Your task to perform on an android device: change the upload size in google photos Image 0: 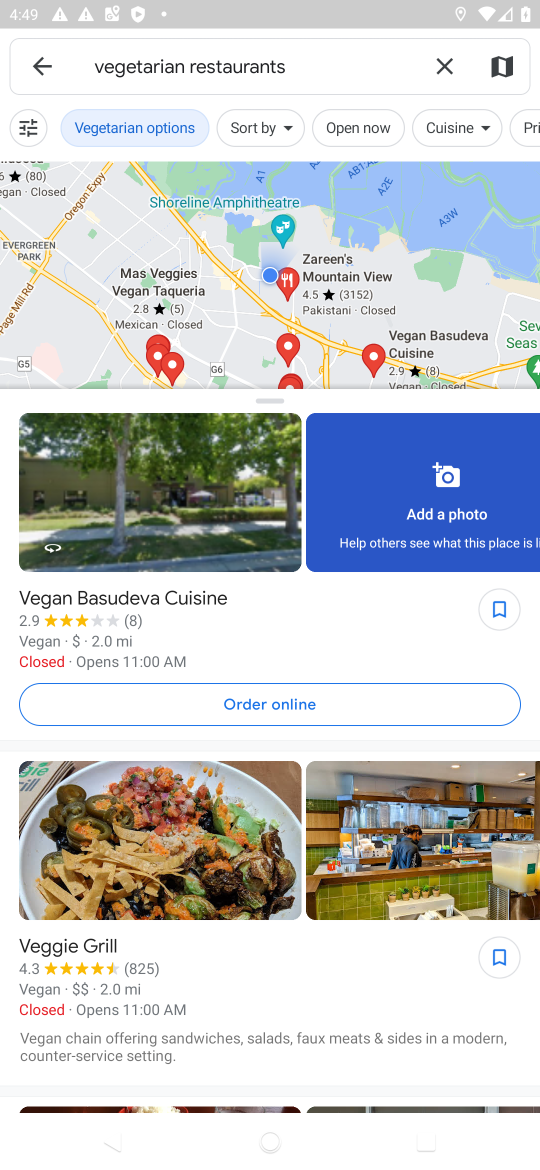
Step 0: press home button
Your task to perform on an android device: change the upload size in google photos Image 1: 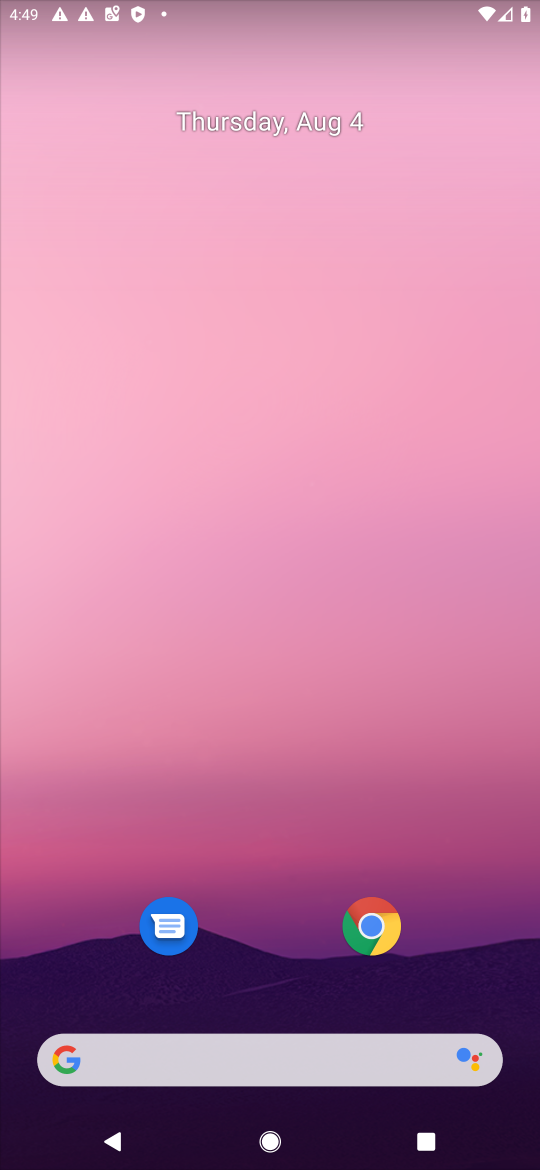
Step 1: drag from (329, 829) to (404, 315)
Your task to perform on an android device: change the upload size in google photos Image 2: 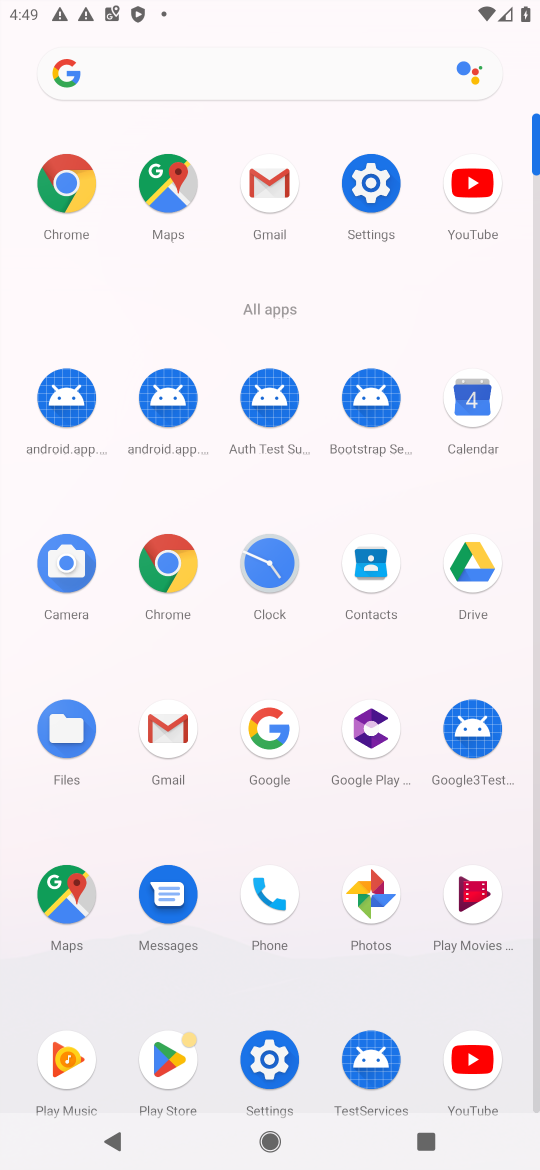
Step 2: click (383, 897)
Your task to perform on an android device: change the upload size in google photos Image 3: 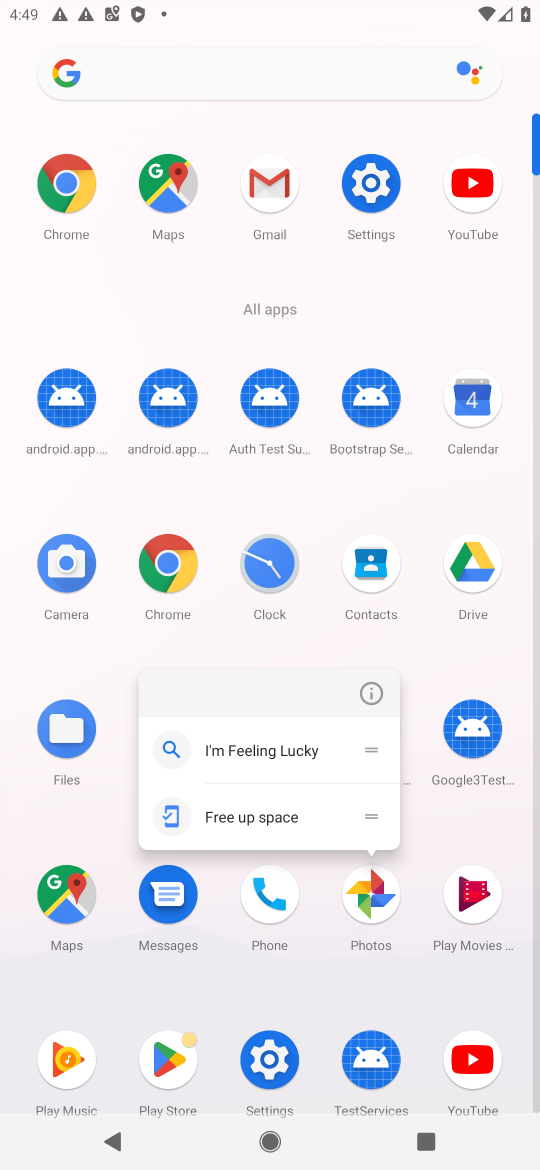
Step 3: click (361, 895)
Your task to perform on an android device: change the upload size in google photos Image 4: 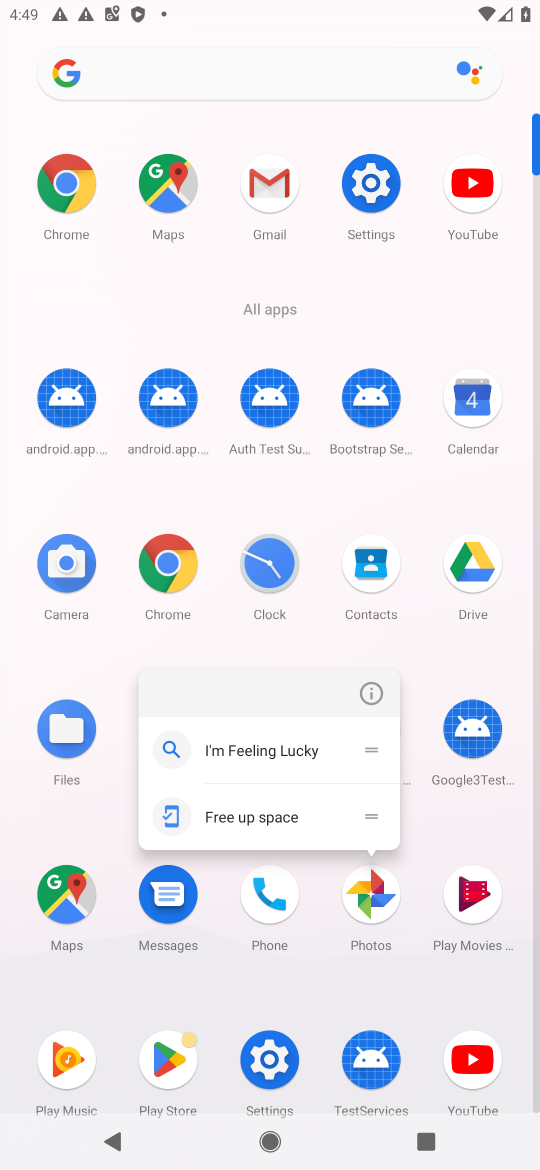
Step 4: click (361, 894)
Your task to perform on an android device: change the upload size in google photos Image 5: 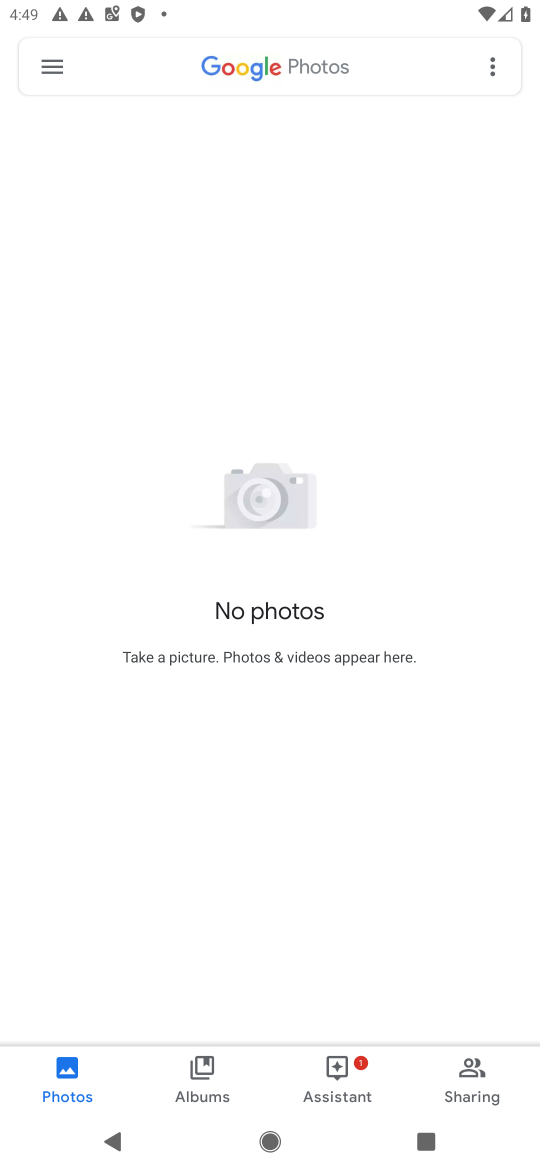
Step 5: click (47, 64)
Your task to perform on an android device: change the upload size in google photos Image 6: 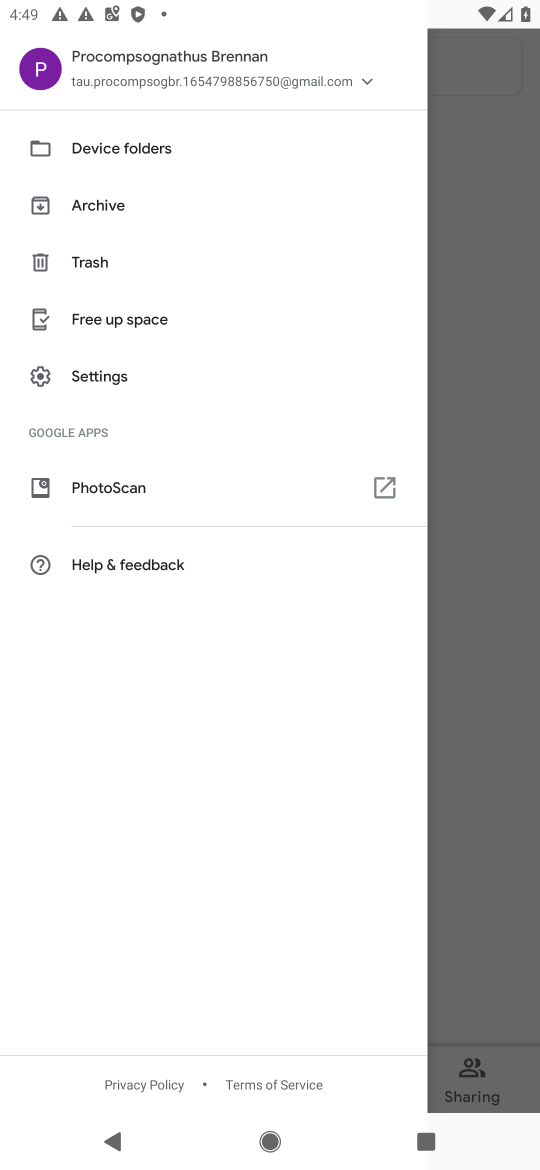
Step 6: click (97, 377)
Your task to perform on an android device: change the upload size in google photos Image 7: 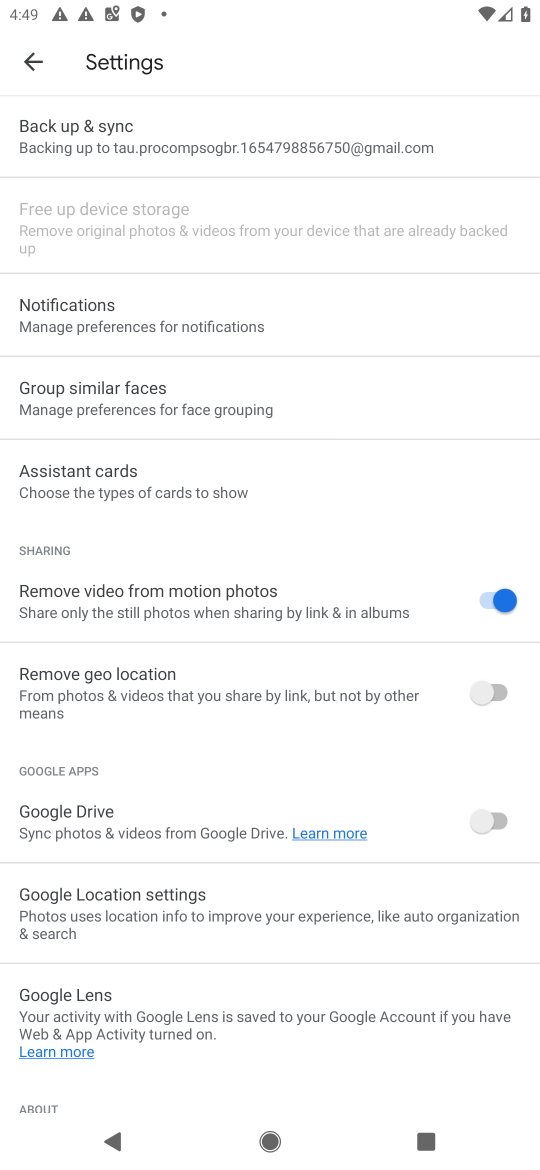
Step 7: click (94, 129)
Your task to perform on an android device: change the upload size in google photos Image 8: 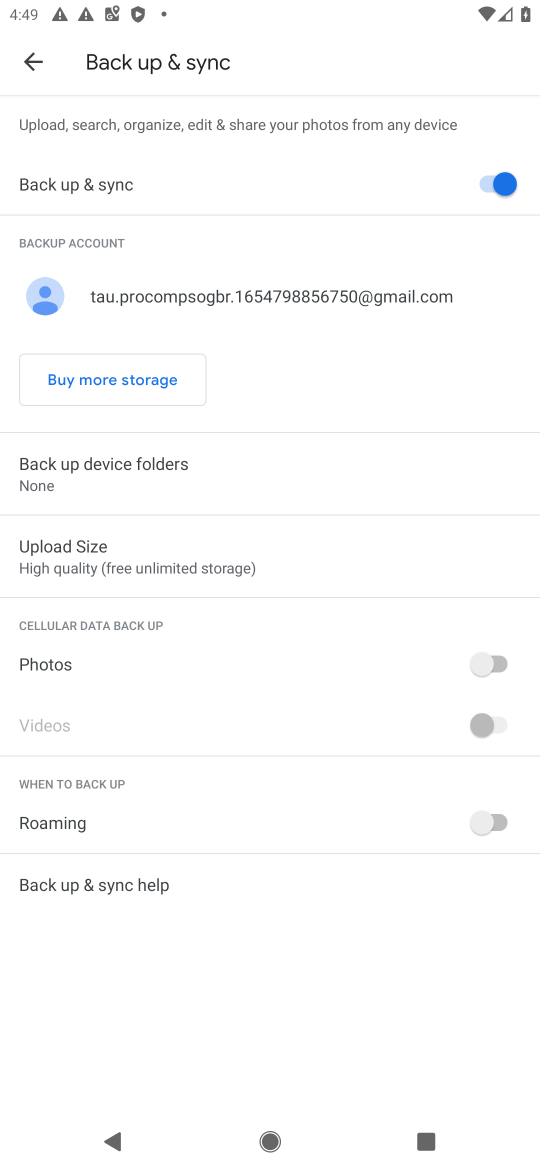
Step 8: click (80, 556)
Your task to perform on an android device: change the upload size in google photos Image 9: 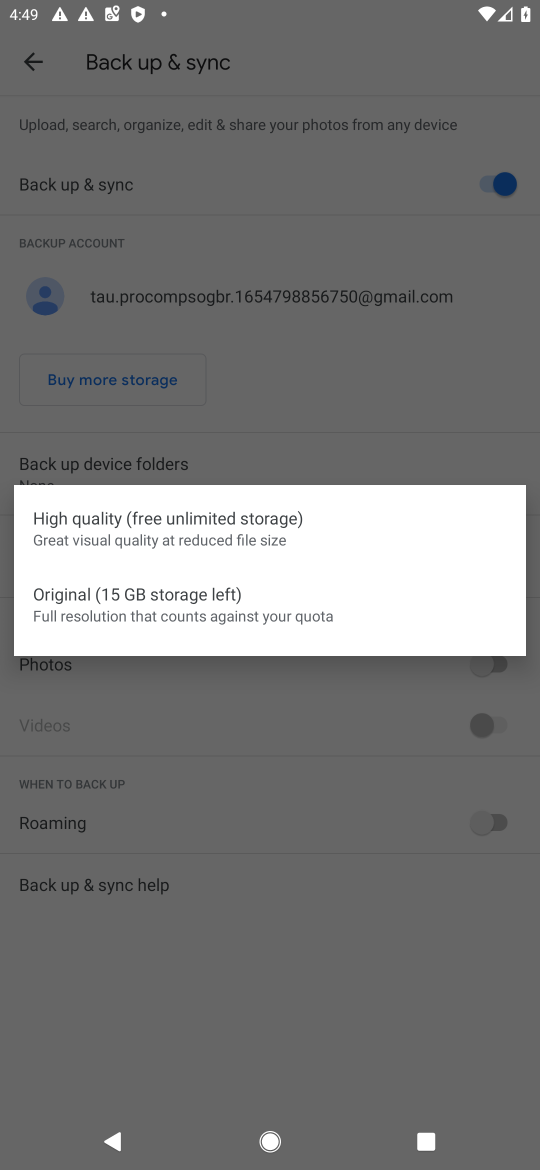
Step 9: click (117, 600)
Your task to perform on an android device: change the upload size in google photos Image 10: 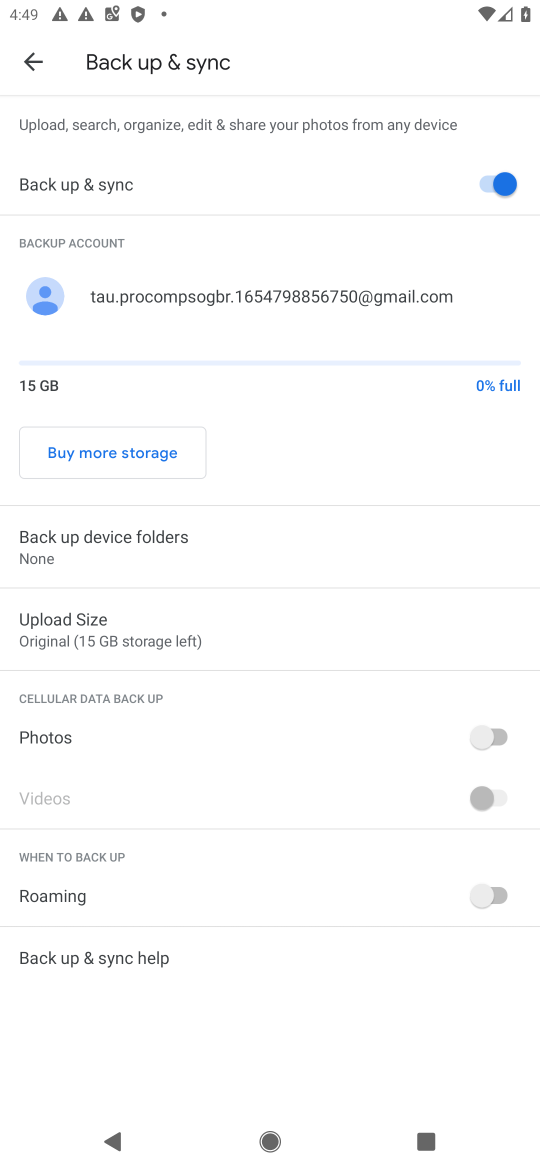
Step 10: task complete